Your task to perform on an android device: What's the weather going to be tomorrow? Image 0: 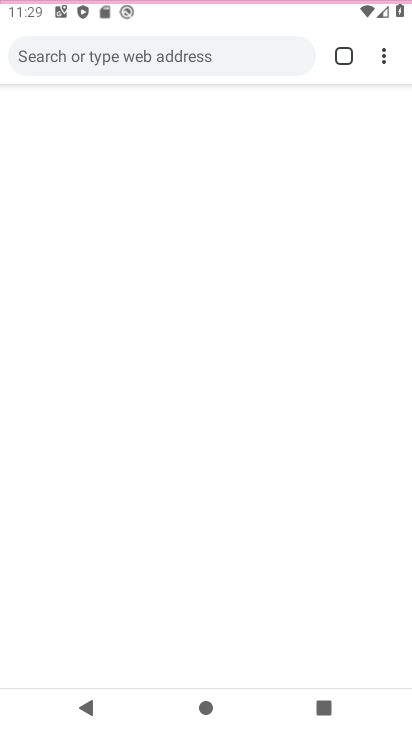
Step 0: click (151, 644)
Your task to perform on an android device: What's the weather going to be tomorrow? Image 1: 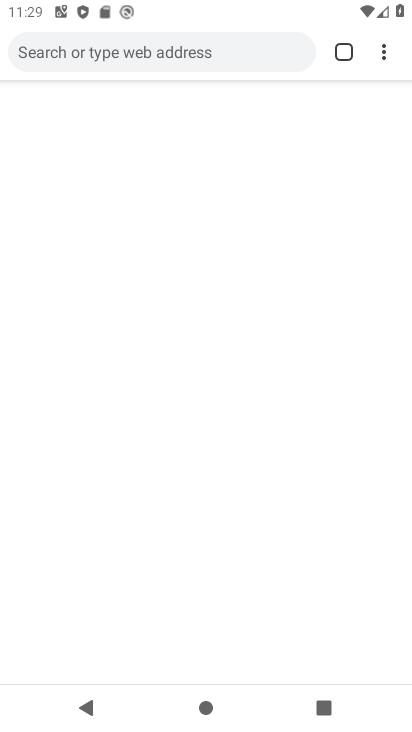
Step 1: press home button
Your task to perform on an android device: What's the weather going to be tomorrow? Image 2: 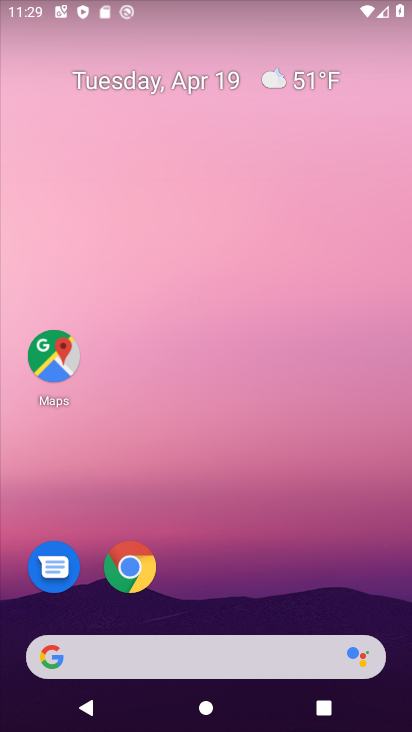
Step 2: click (308, 74)
Your task to perform on an android device: What's the weather going to be tomorrow? Image 3: 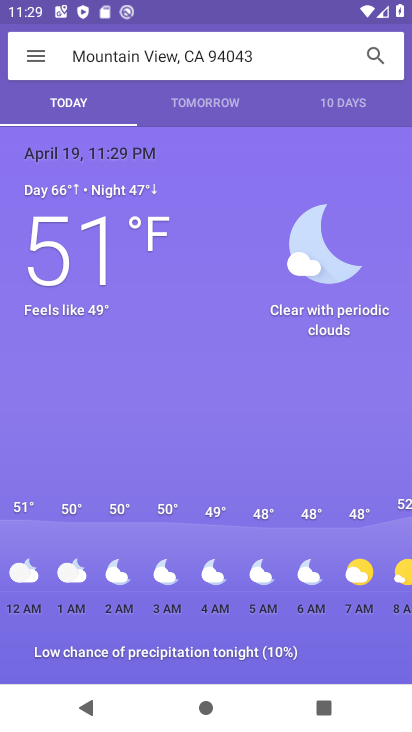
Step 3: task complete